Your task to perform on an android device: uninstall "PUBG MOBILE" Image 0: 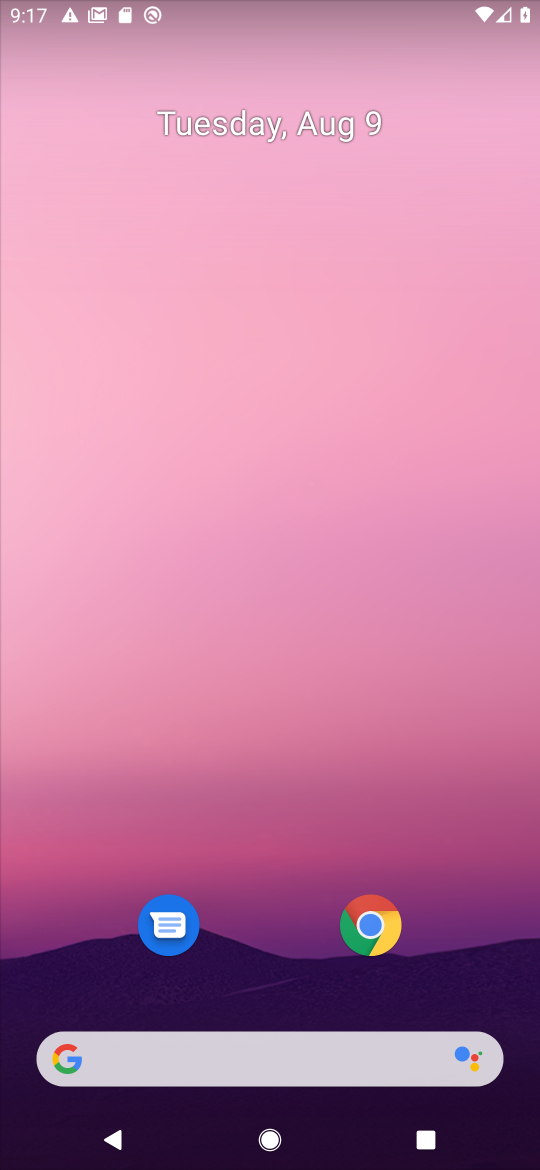
Step 0: drag from (264, 554) to (264, 403)
Your task to perform on an android device: uninstall "PUBG MOBILE" Image 1: 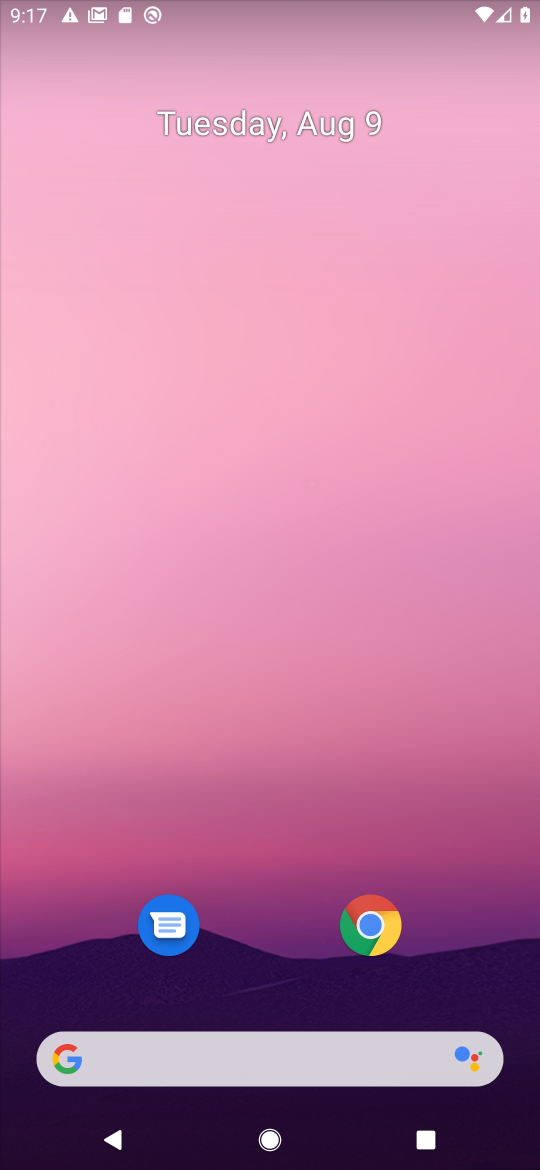
Step 1: drag from (233, 704) to (234, 324)
Your task to perform on an android device: uninstall "PUBG MOBILE" Image 2: 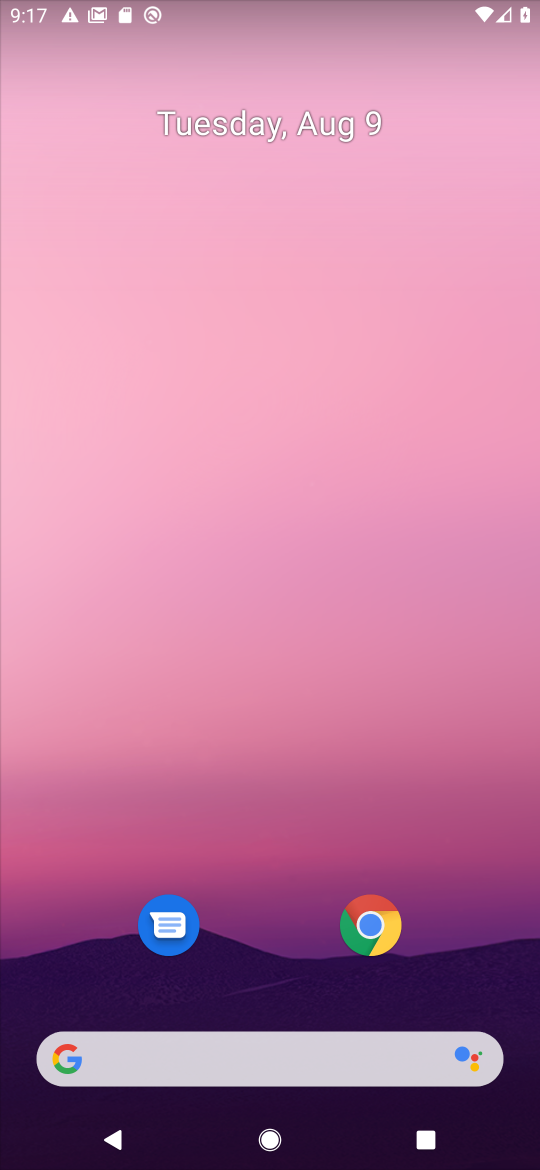
Step 2: drag from (252, 655) to (250, 292)
Your task to perform on an android device: uninstall "PUBG MOBILE" Image 3: 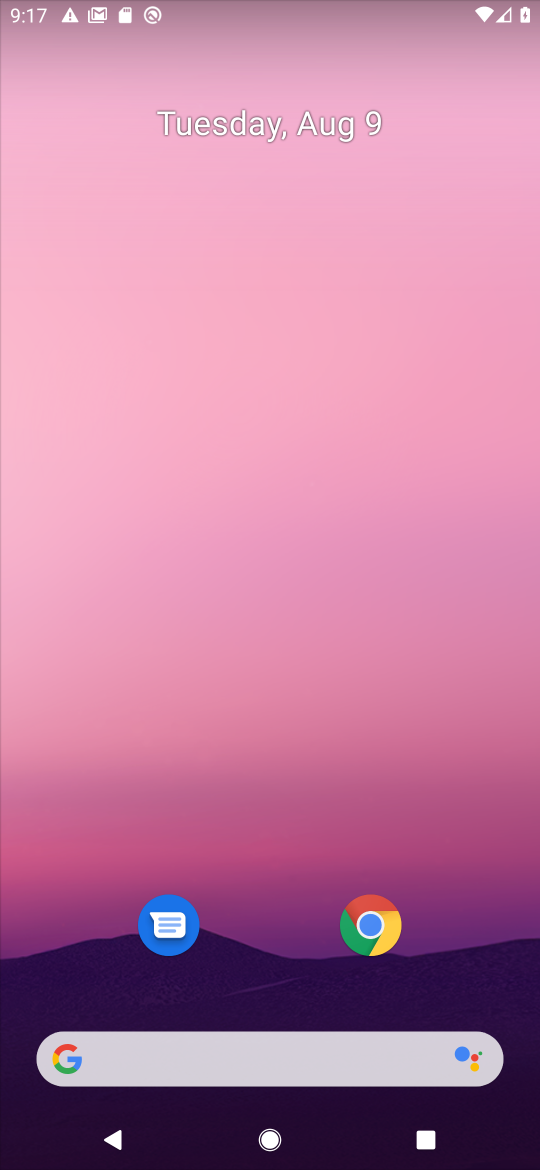
Step 3: drag from (247, 965) to (234, 109)
Your task to perform on an android device: uninstall "PUBG MOBILE" Image 4: 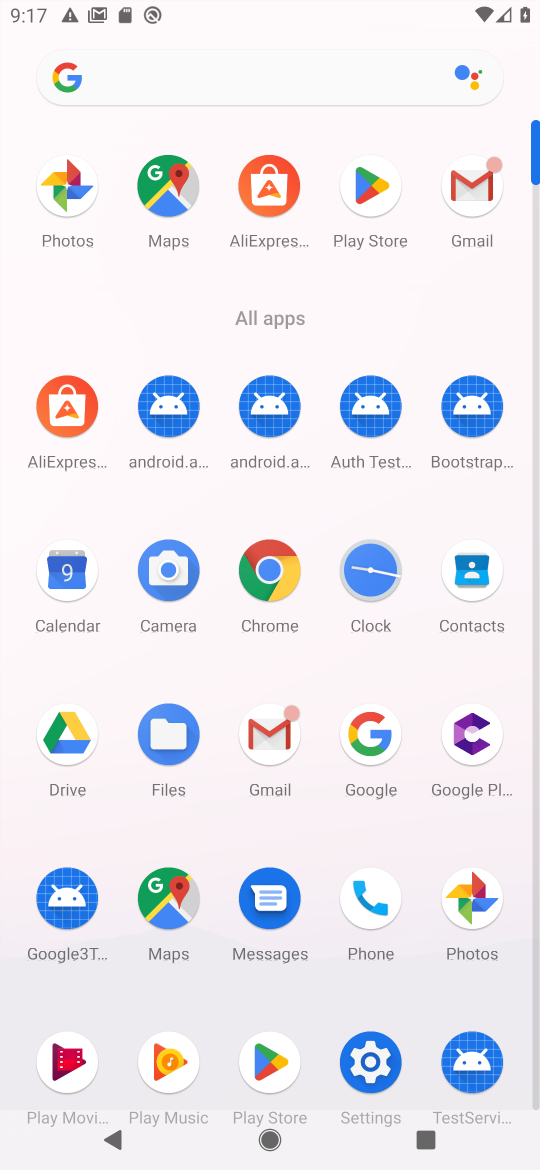
Step 4: click (378, 197)
Your task to perform on an android device: uninstall "PUBG MOBILE" Image 5: 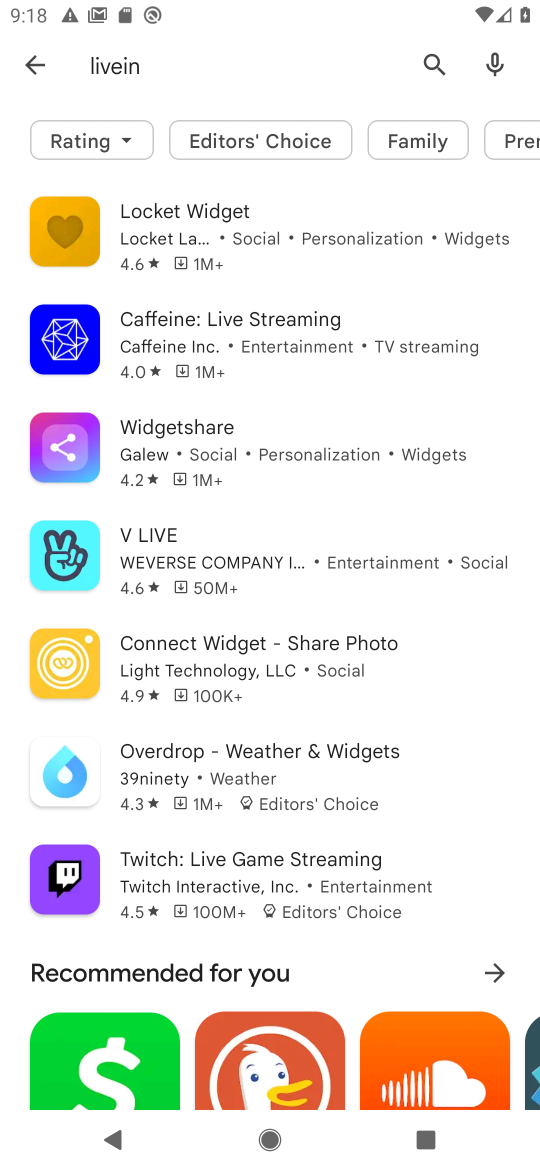
Step 5: click (37, 66)
Your task to perform on an android device: uninstall "PUBG MOBILE" Image 6: 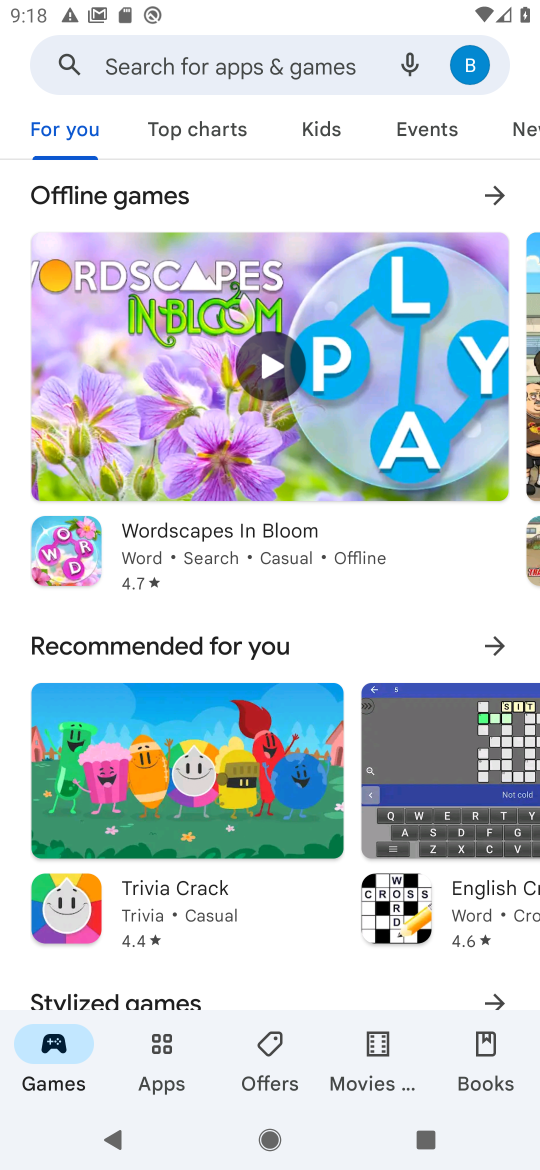
Step 6: click (139, 66)
Your task to perform on an android device: uninstall "PUBG MOBILE" Image 7: 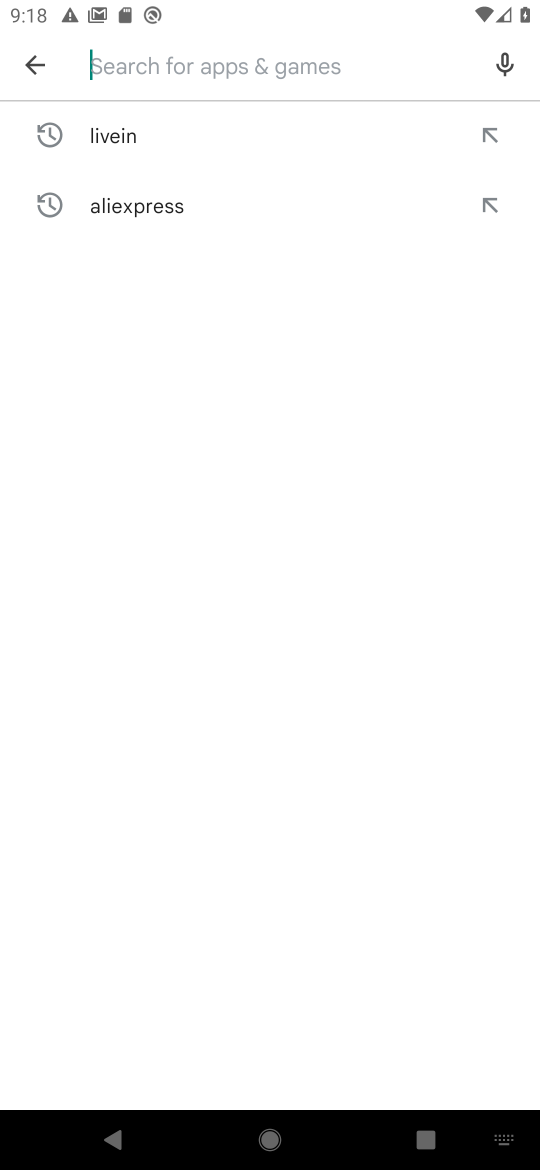
Step 7: type "PUBG MOBILE"
Your task to perform on an android device: uninstall "PUBG MOBILE" Image 8: 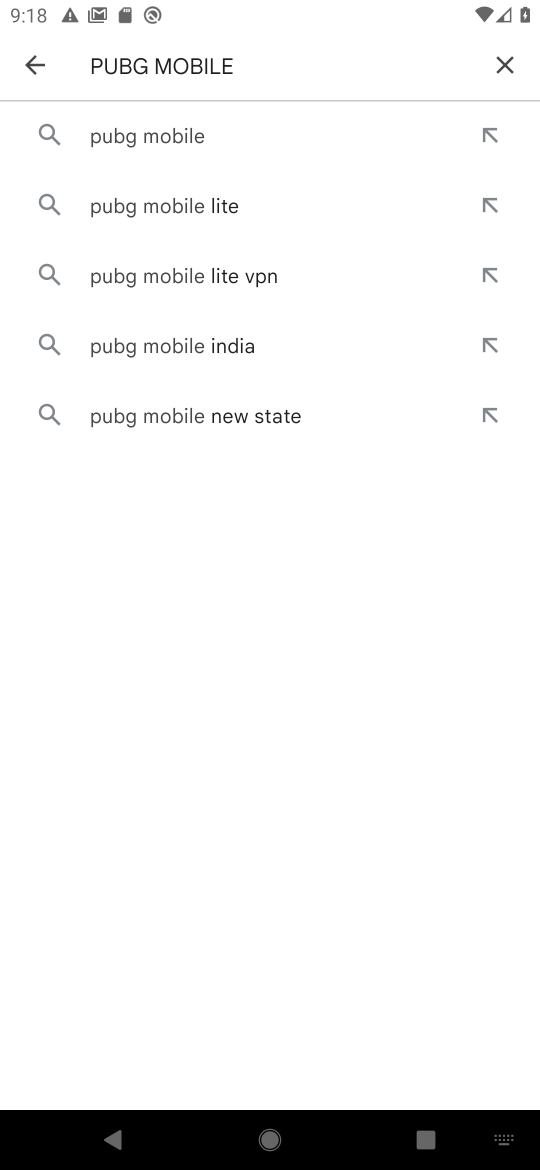
Step 8: click (145, 139)
Your task to perform on an android device: uninstall "PUBG MOBILE" Image 9: 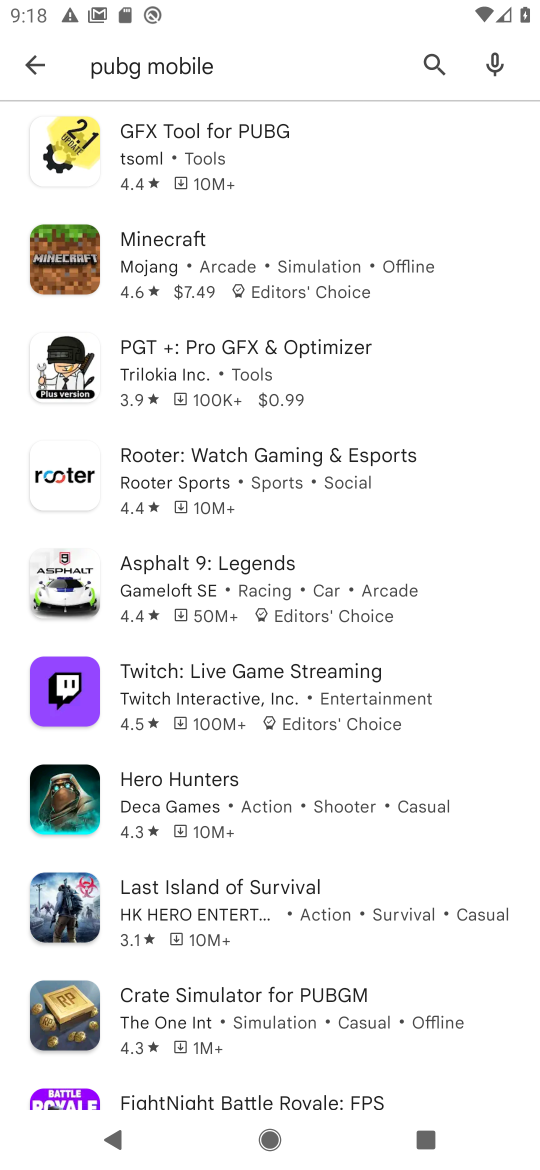
Step 9: click (145, 139)
Your task to perform on an android device: uninstall "PUBG MOBILE" Image 10: 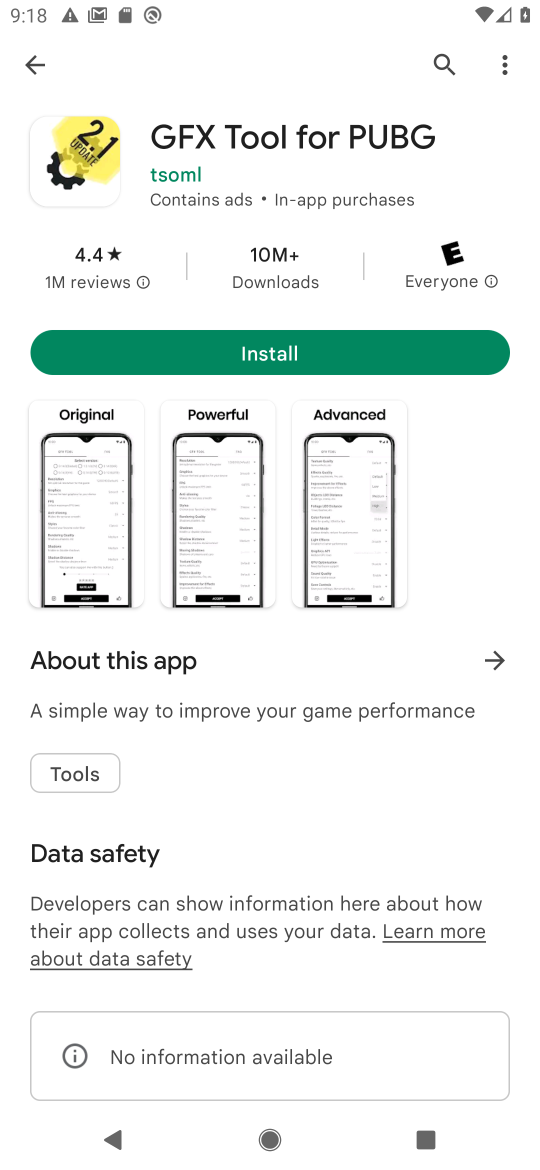
Step 10: click (271, 330)
Your task to perform on an android device: uninstall "PUBG MOBILE" Image 11: 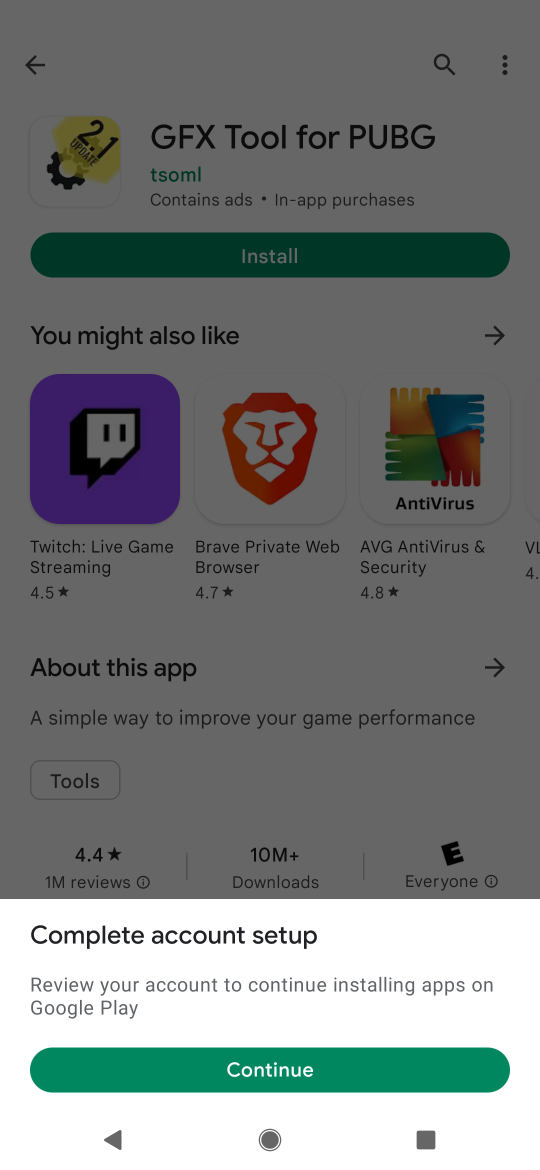
Step 11: click (256, 1061)
Your task to perform on an android device: uninstall "PUBG MOBILE" Image 12: 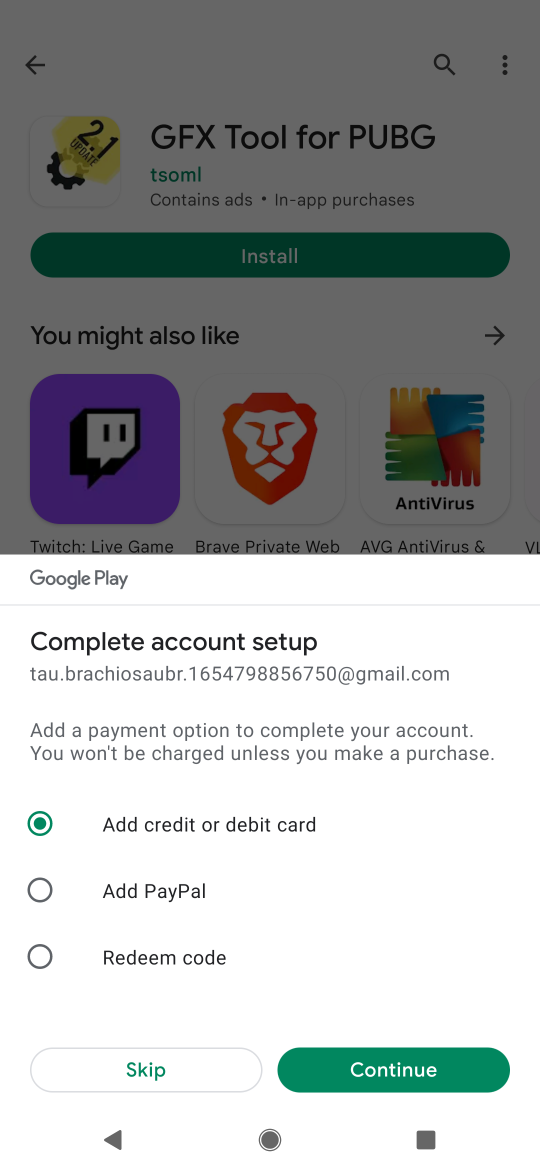
Step 12: click (111, 1074)
Your task to perform on an android device: uninstall "PUBG MOBILE" Image 13: 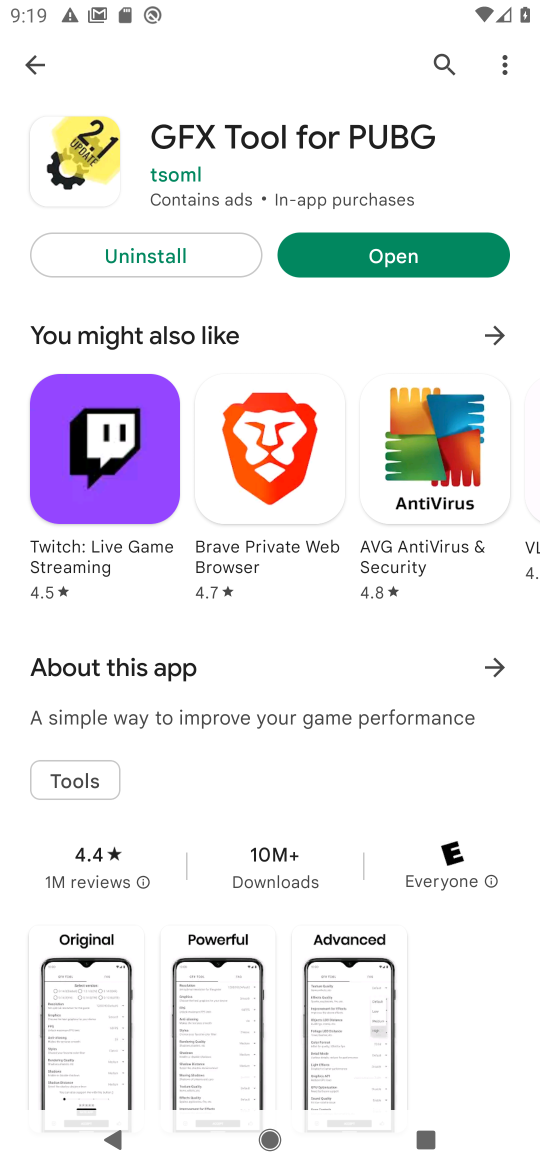
Step 13: click (183, 247)
Your task to perform on an android device: uninstall "PUBG MOBILE" Image 14: 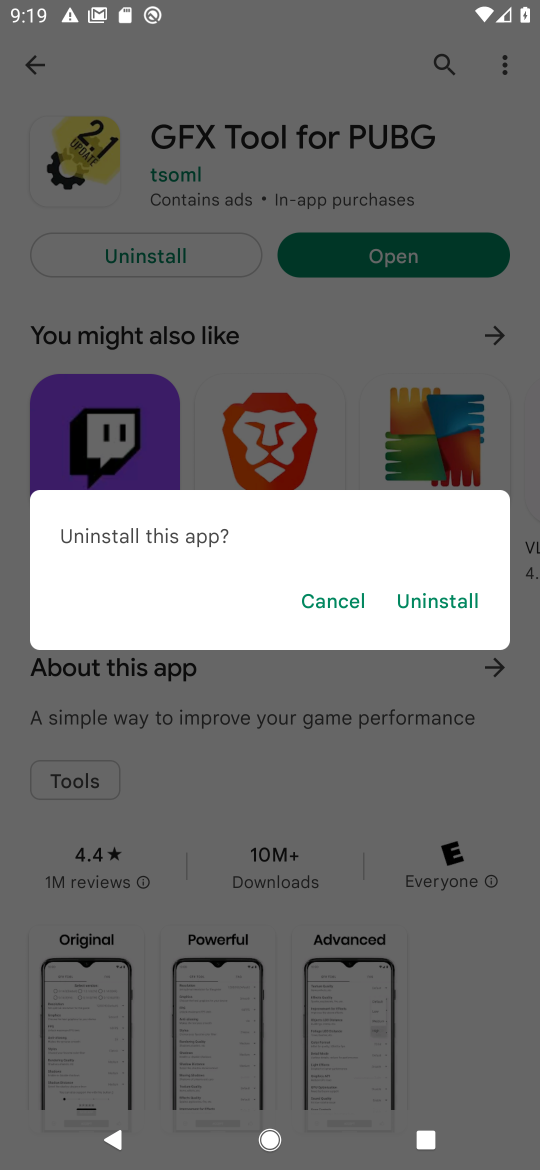
Step 14: click (435, 595)
Your task to perform on an android device: uninstall "PUBG MOBILE" Image 15: 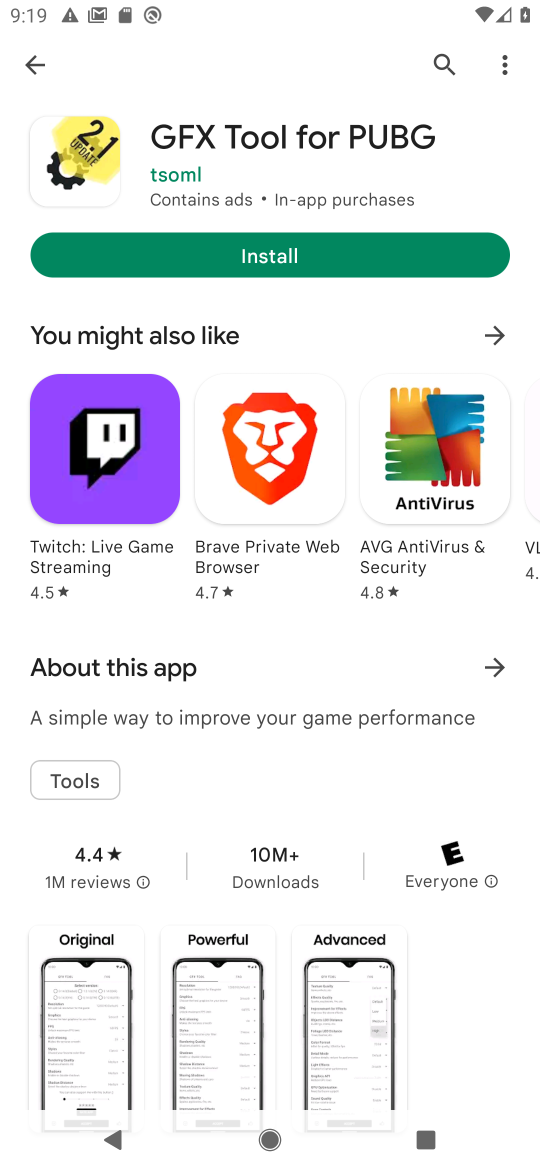
Step 15: task complete